Your task to perform on an android device: Go to settings Image 0: 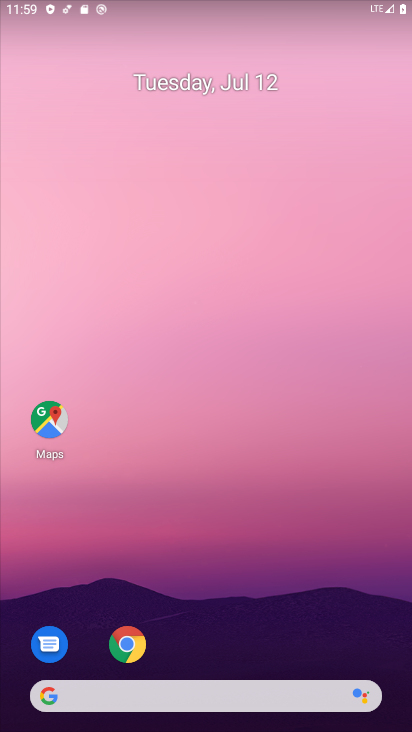
Step 0: drag from (184, 653) to (226, 149)
Your task to perform on an android device: Go to settings Image 1: 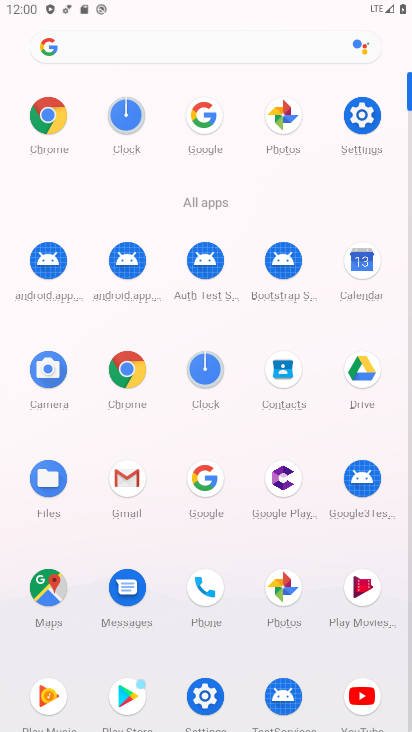
Step 1: click (360, 114)
Your task to perform on an android device: Go to settings Image 2: 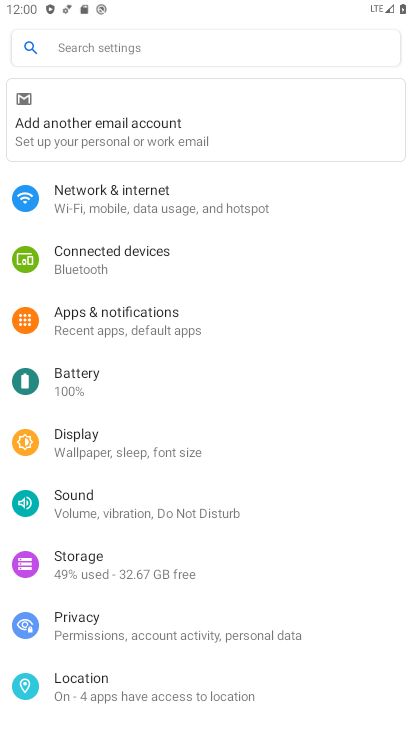
Step 2: task complete